Your task to perform on an android device: Open calendar and show me the second week of next month Image 0: 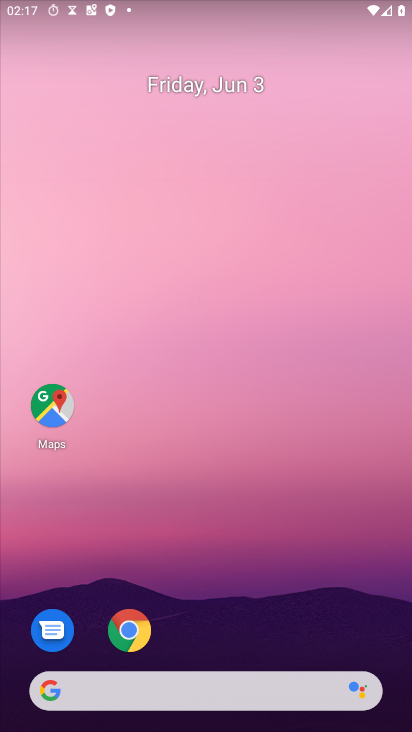
Step 0: drag from (212, 643) to (179, 19)
Your task to perform on an android device: Open calendar and show me the second week of next month Image 1: 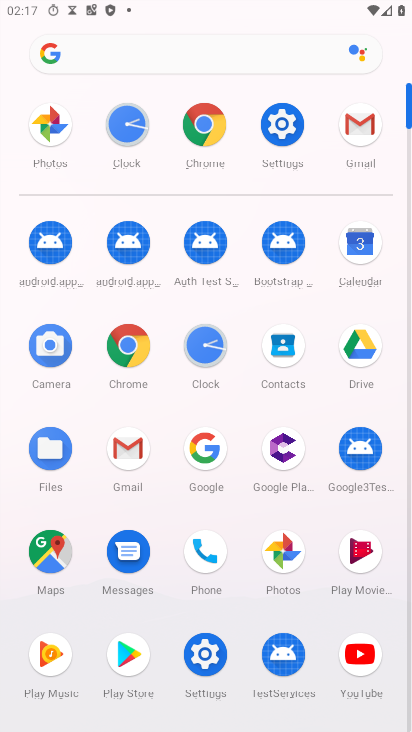
Step 1: click (374, 257)
Your task to perform on an android device: Open calendar and show me the second week of next month Image 2: 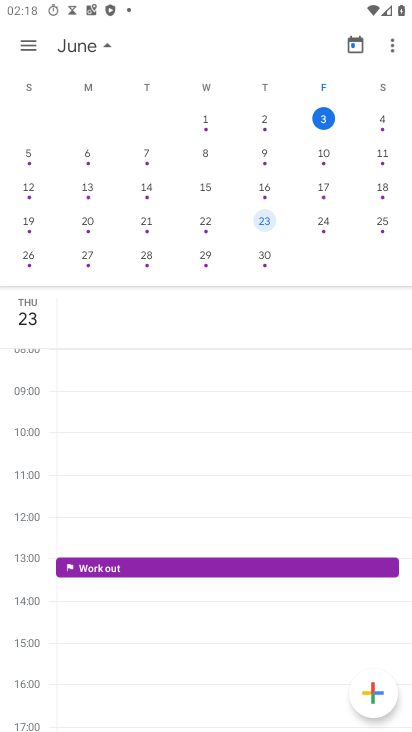
Step 2: click (270, 156)
Your task to perform on an android device: Open calendar and show me the second week of next month Image 3: 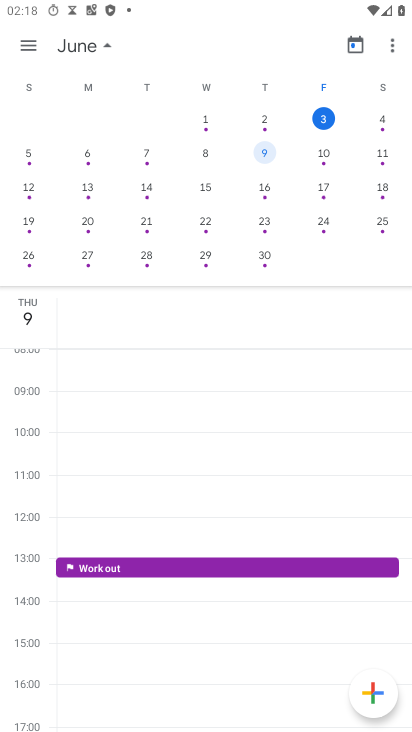
Step 3: task complete